Your task to perform on an android device: Open the calendar app, open the side menu, and click the "Day" option Image 0: 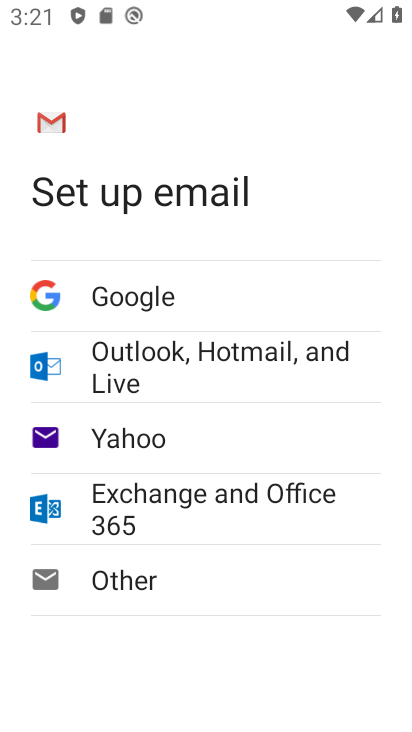
Step 0: press home button
Your task to perform on an android device: Open the calendar app, open the side menu, and click the "Day" option Image 1: 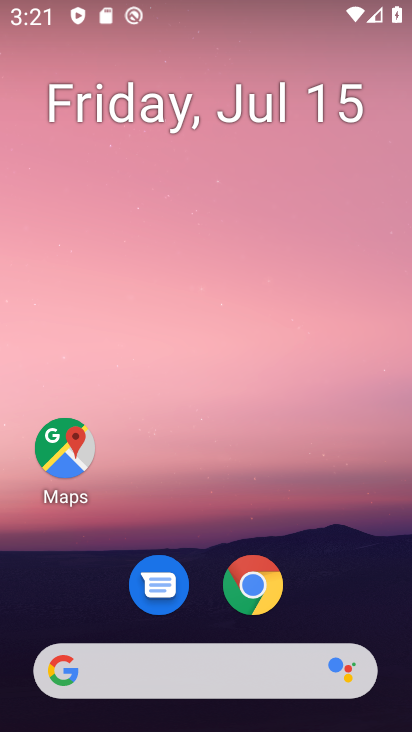
Step 1: drag from (193, 664) to (198, 88)
Your task to perform on an android device: Open the calendar app, open the side menu, and click the "Day" option Image 2: 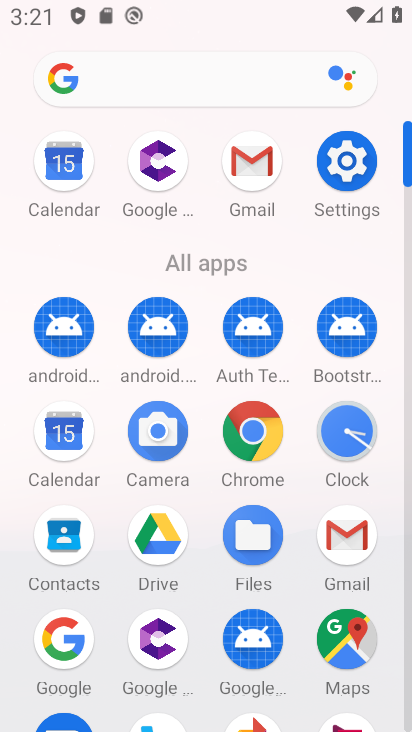
Step 2: click (86, 423)
Your task to perform on an android device: Open the calendar app, open the side menu, and click the "Day" option Image 3: 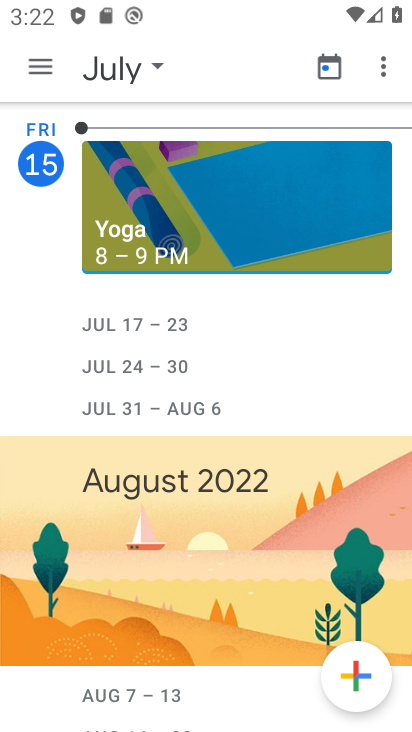
Step 3: click (32, 69)
Your task to perform on an android device: Open the calendar app, open the side menu, and click the "Day" option Image 4: 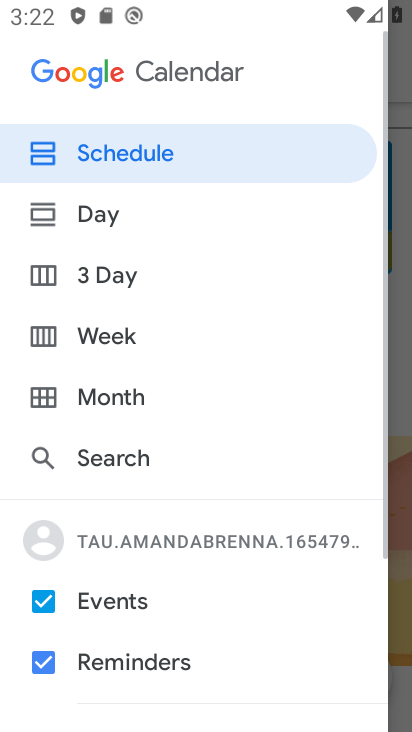
Step 4: click (88, 226)
Your task to perform on an android device: Open the calendar app, open the side menu, and click the "Day" option Image 5: 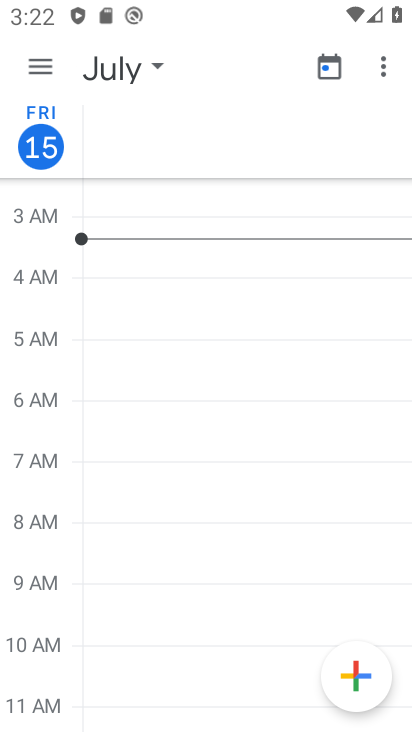
Step 5: task complete